Your task to perform on an android device: move a message to another label in the gmail app Image 0: 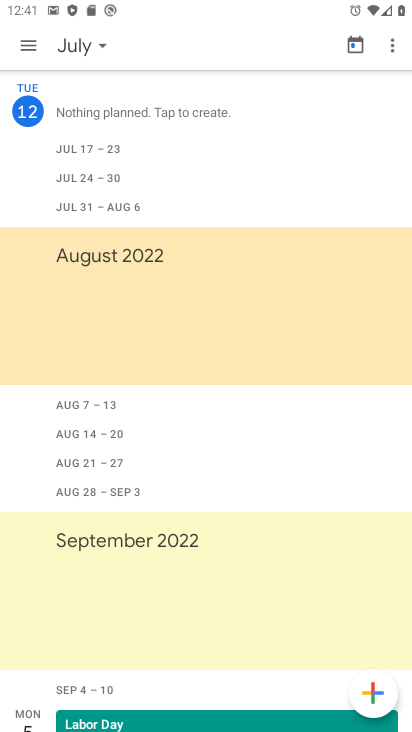
Step 0: press home button
Your task to perform on an android device: move a message to another label in the gmail app Image 1: 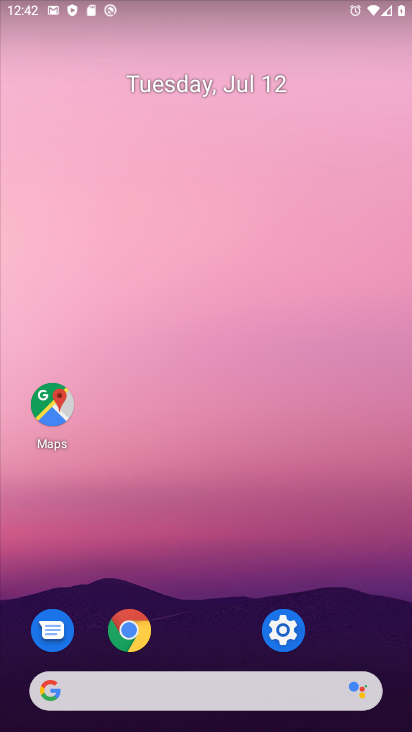
Step 1: drag from (265, 703) to (379, 75)
Your task to perform on an android device: move a message to another label in the gmail app Image 2: 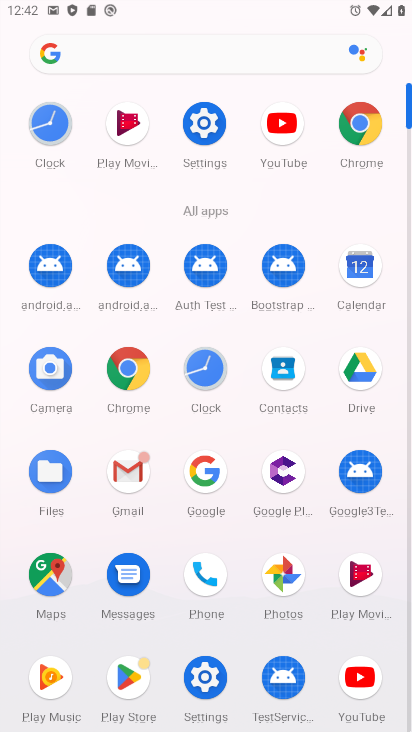
Step 2: click (143, 475)
Your task to perform on an android device: move a message to another label in the gmail app Image 3: 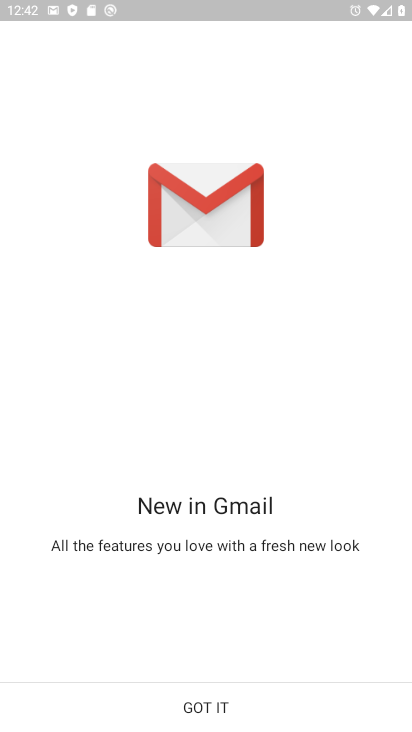
Step 3: click (182, 698)
Your task to perform on an android device: move a message to another label in the gmail app Image 4: 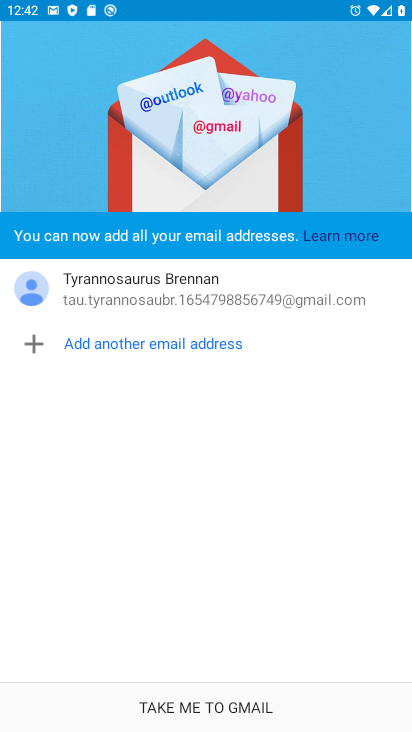
Step 4: click (190, 703)
Your task to perform on an android device: move a message to another label in the gmail app Image 5: 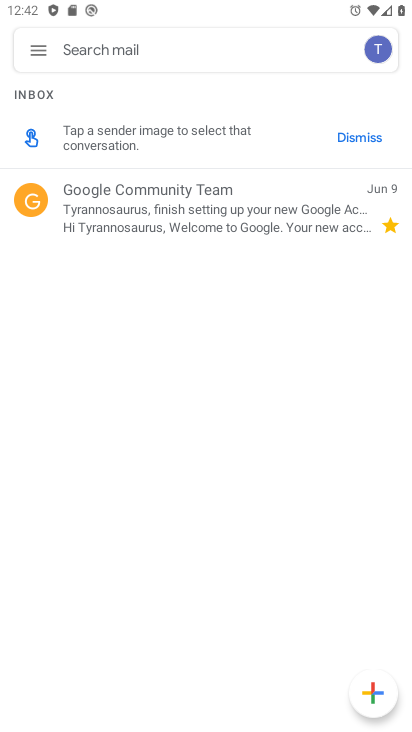
Step 5: click (40, 54)
Your task to perform on an android device: move a message to another label in the gmail app Image 6: 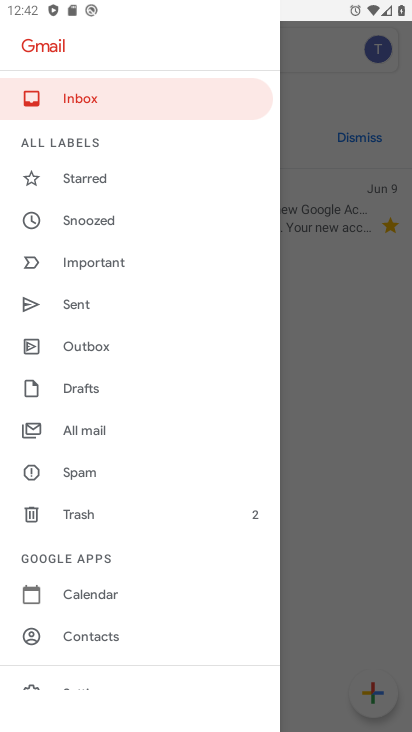
Step 6: drag from (97, 620) to (155, 536)
Your task to perform on an android device: move a message to another label in the gmail app Image 7: 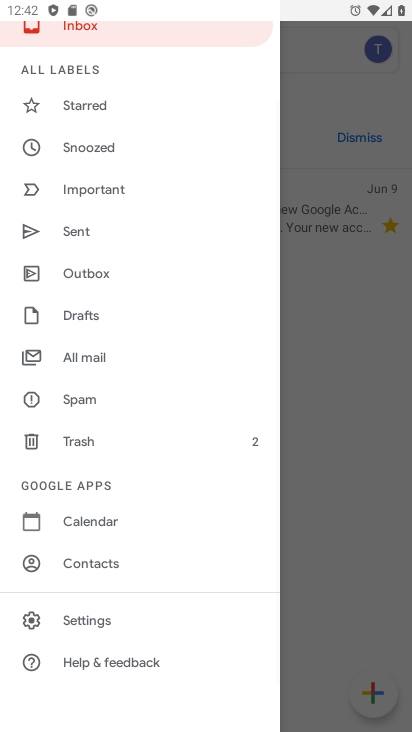
Step 7: click (98, 616)
Your task to perform on an android device: move a message to another label in the gmail app Image 8: 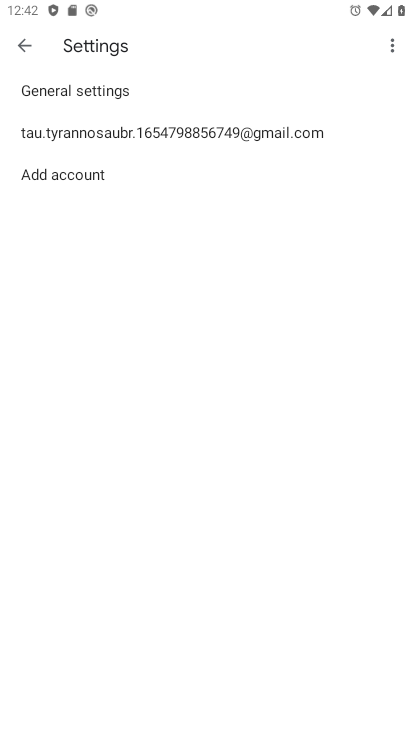
Step 8: click (136, 129)
Your task to perform on an android device: move a message to another label in the gmail app Image 9: 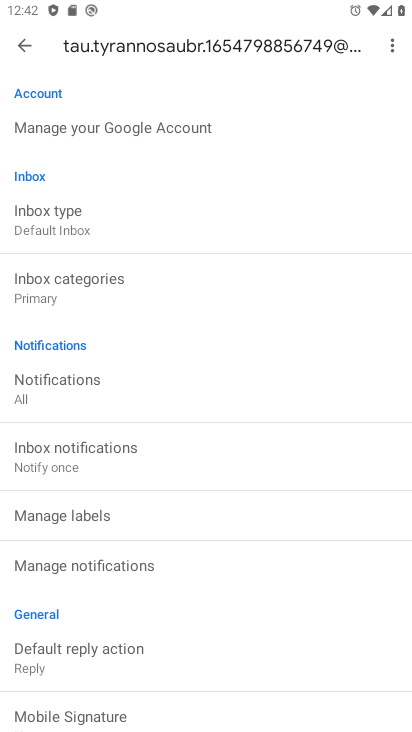
Step 9: click (91, 517)
Your task to perform on an android device: move a message to another label in the gmail app Image 10: 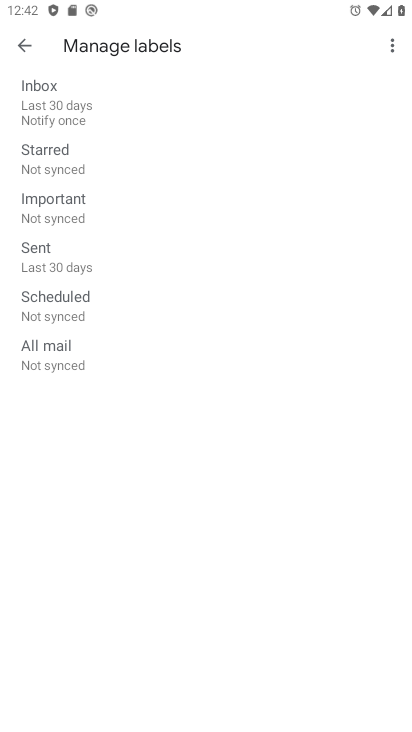
Step 10: click (132, 112)
Your task to perform on an android device: move a message to another label in the gmail app Image 11: 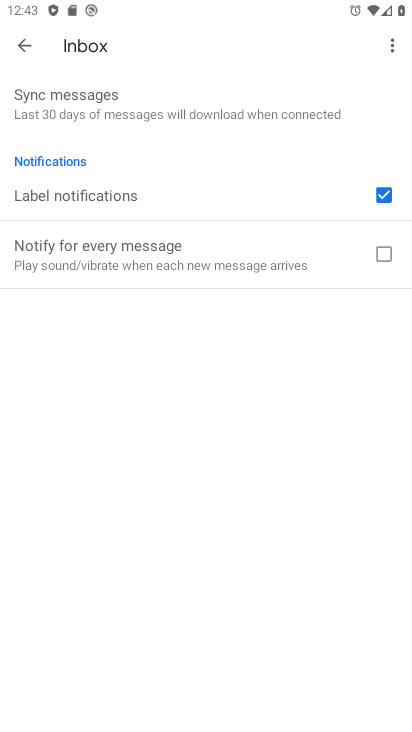
Step 11: task complete